Your task to perform on an android device: Open Youtube and go to "Your channel" Image 0: 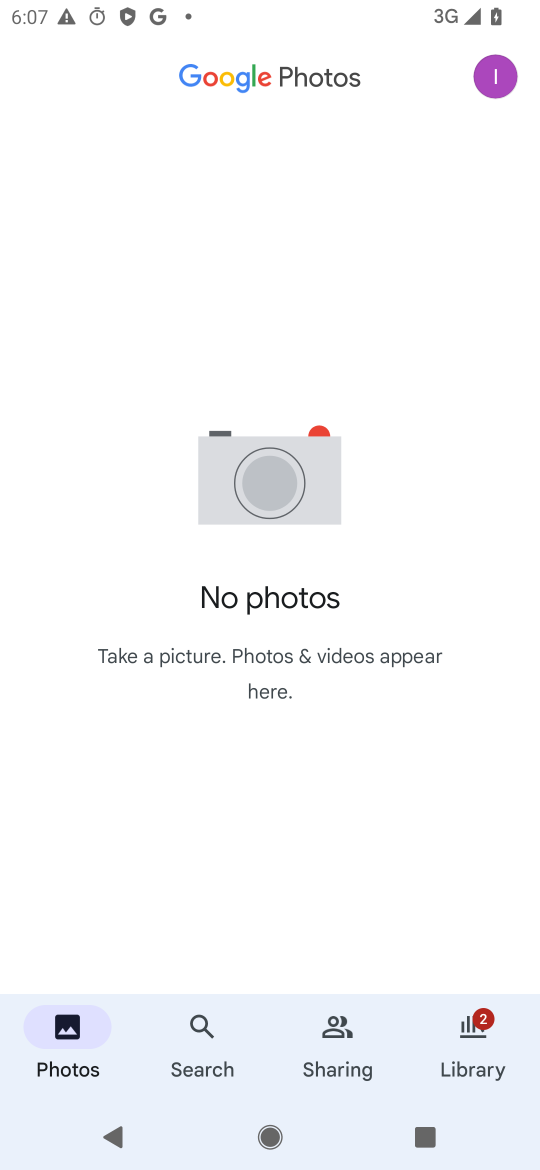
Step 0: press home button
Your task to perform on an android device: Open Youtube and go to "Your channel" Image 1: 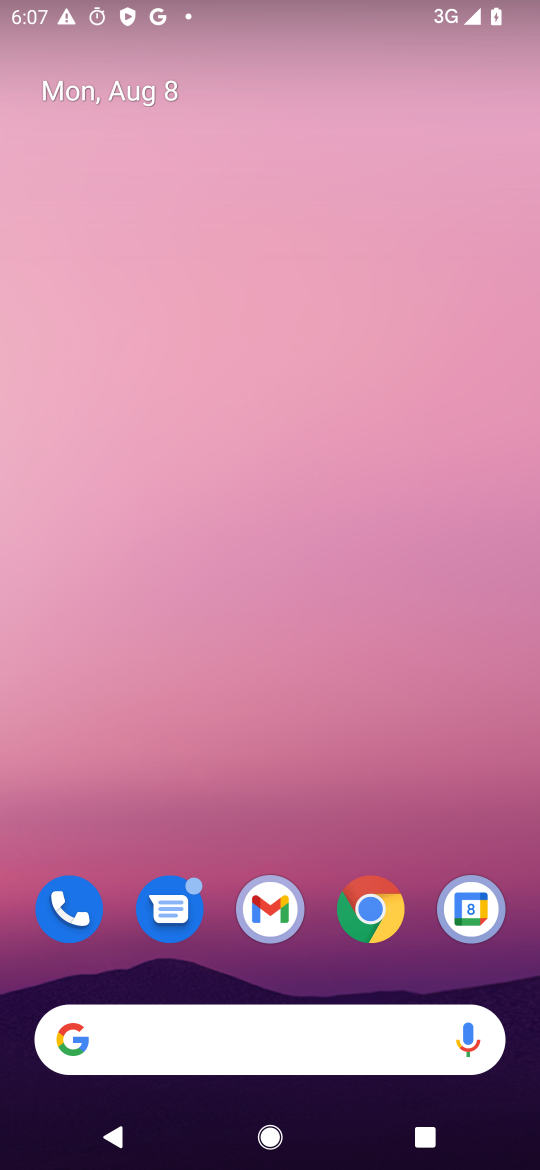
Step 1: drag from (241, 1045) to (328, 297)
Your task to perform on an android device: Open Youtube and go to "Your channel" Image 2: 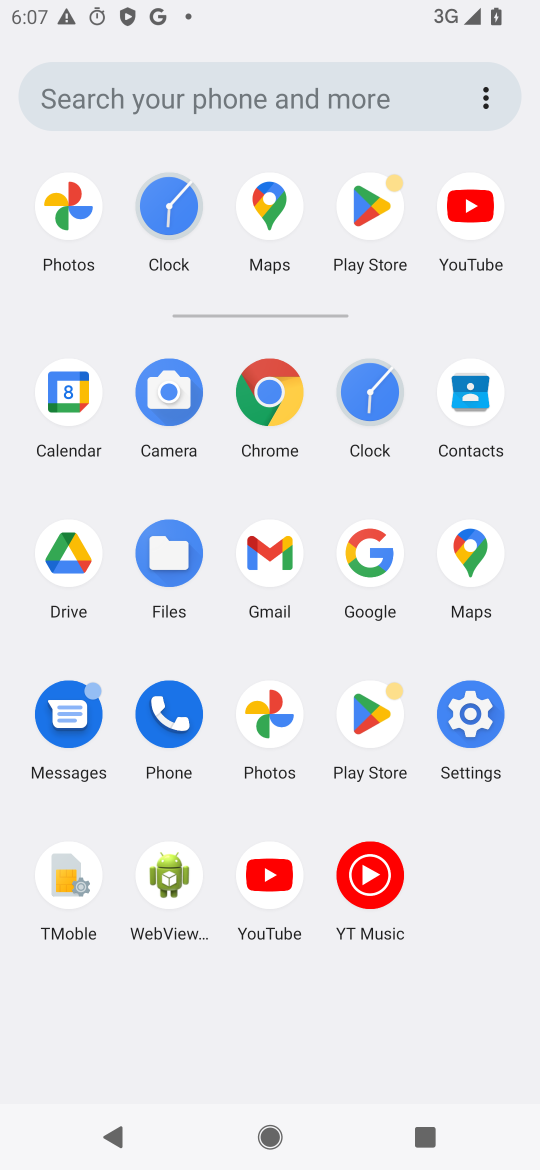
Step 2: click (280, 872)
Your task to perform on an android device: Open Youtube and go to "Your channel" Image 3: 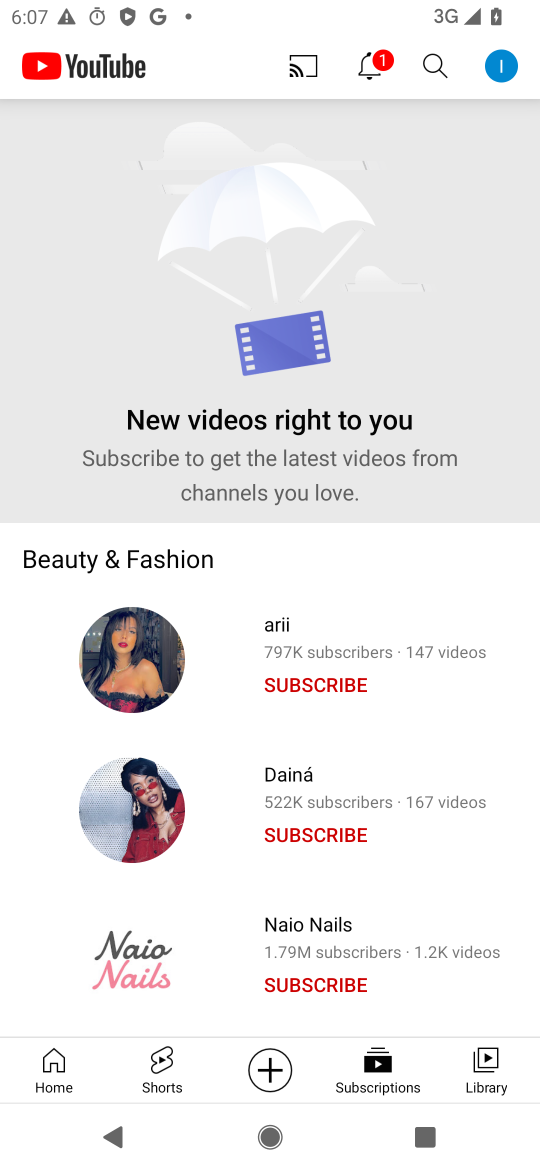
Step 3: click (488, 55)
Your task to perform on an android device: Open Youtube and go to "Your channel" Image 4: 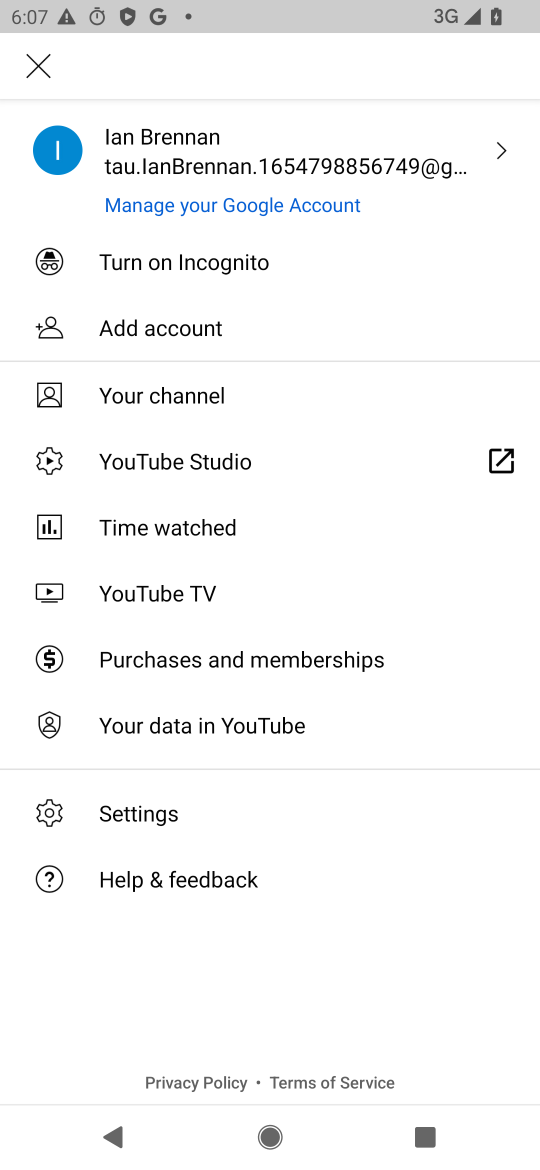
Step 4: click (203, 400)
Your task to perform on an android device: Open Youtube and go to "Your channel" Image 5: 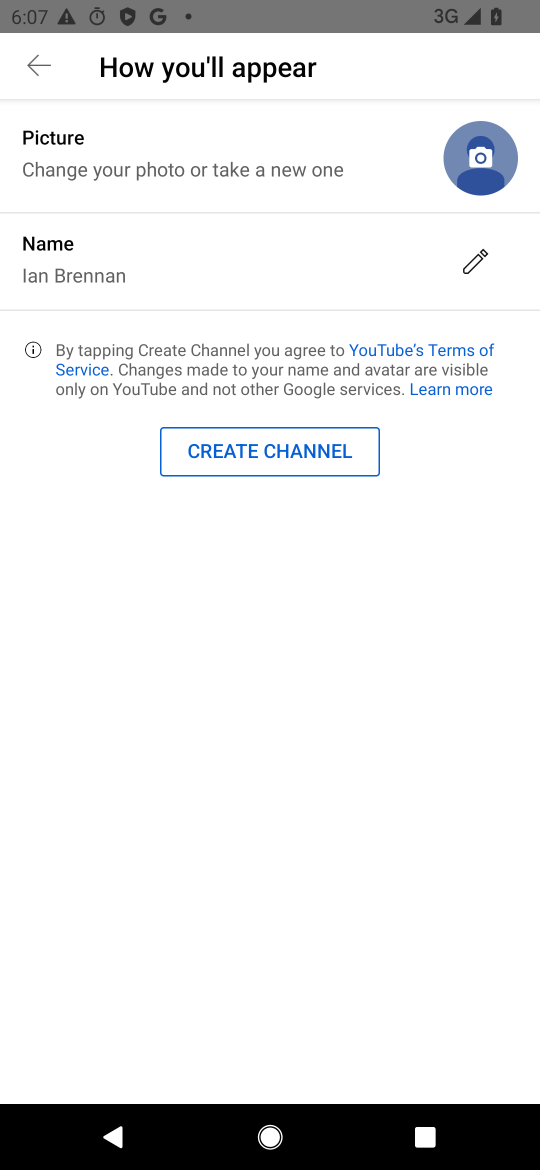
Step 5: task complete